Your task to perform on an android device: Go to Amazon Image 0: 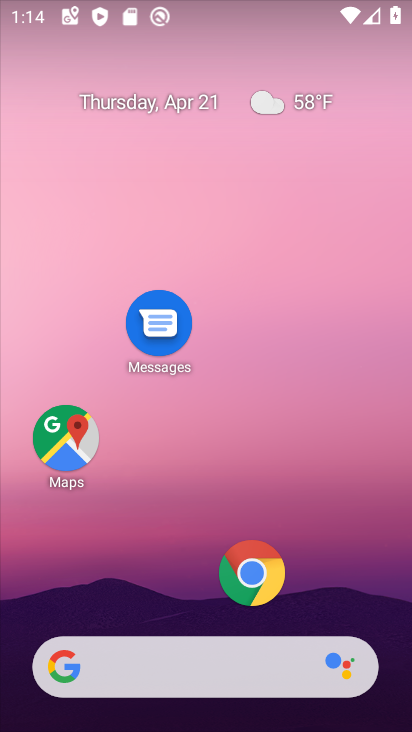
Step 0: click (251, 578)
Your task to perform on an android device: Go to Amazon Image 1: 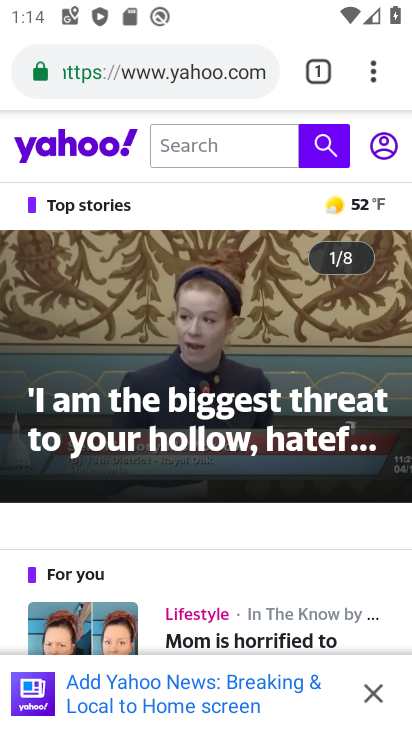
Step 1: click (262, 72)
Your task to perform on an android device: Go to Amazon Image 2: 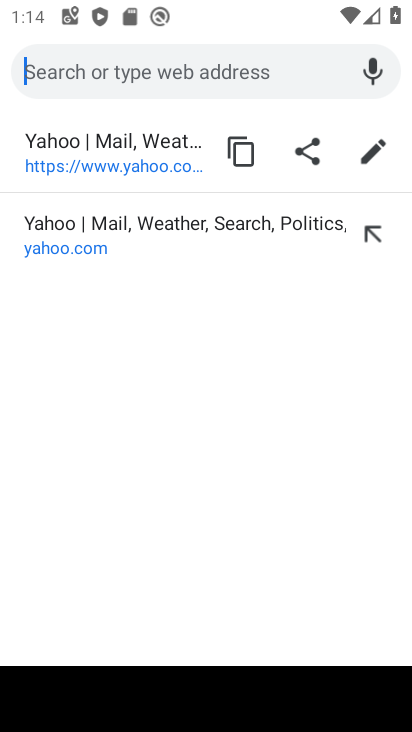
Step 2: type "amazon"
Your task to perform on an android device: Go to Amazon Image 3: 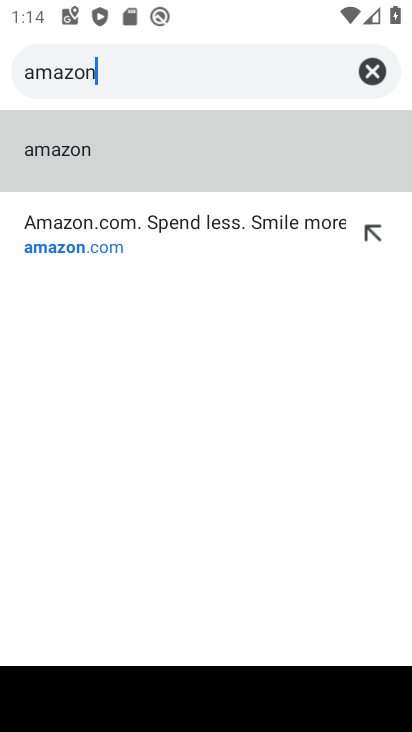
Step 3: click (128, 151)
Your task to perform on an android device: Go to Amazon Image 4: 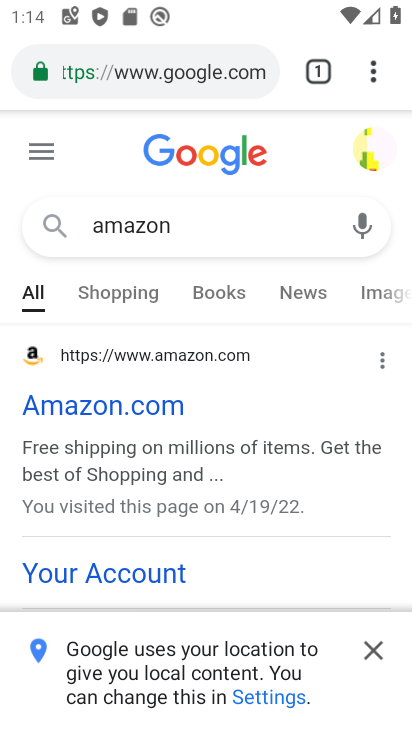
Step 4: click (134, 405)
Your task to perform on an android device: Go to Amazon Image 5: 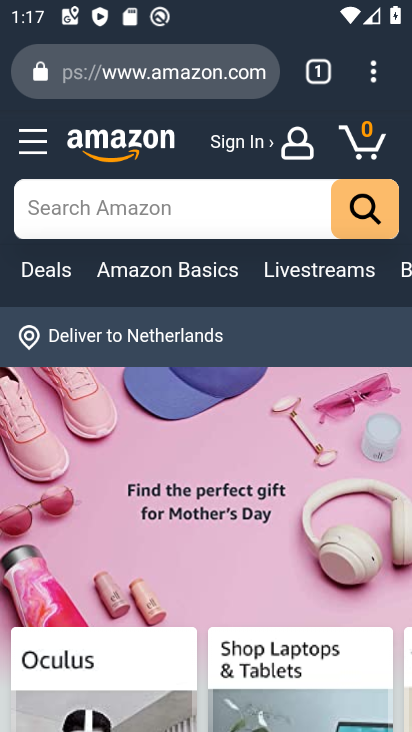
Step 5: task complete